Your task to perform on an android device: Go to network settings Image 0: 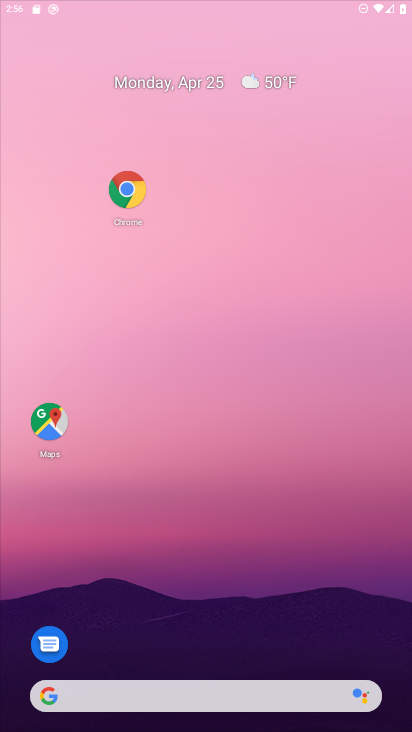
Step 0: click (172, 663)
Your task to perform on an android device: Go to network settings Image 1: 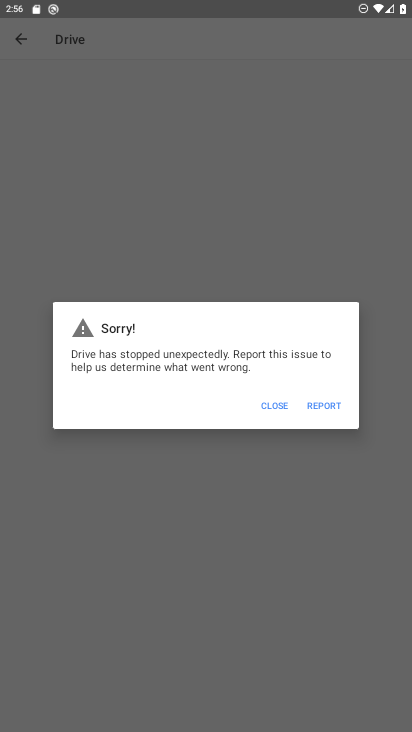
Step 1: press home button
Your task to perform on an android device: Go to network settings Image 2: 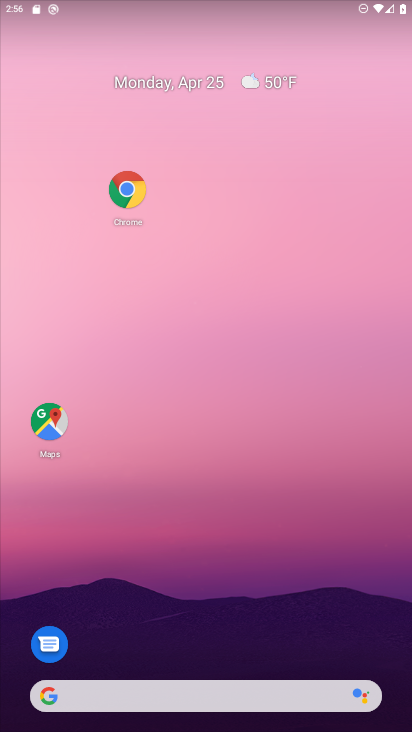
Step 2: click (184, 648)
Your task to perform on an android device: Go to network settings Image 3: 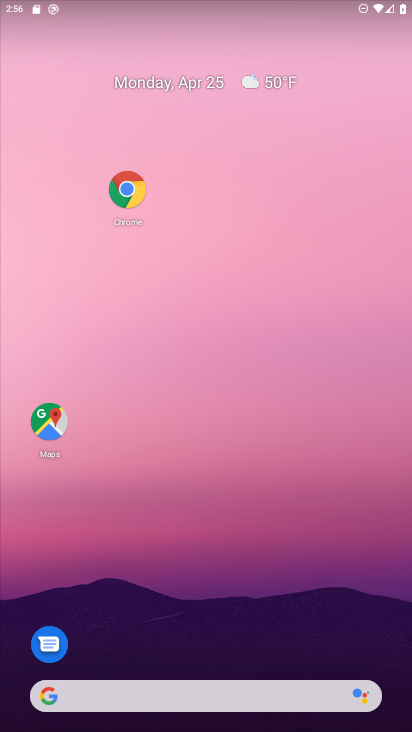
Step 3: click (223, 140)
Your task to perform on an android device: Go to network settings Image 4: 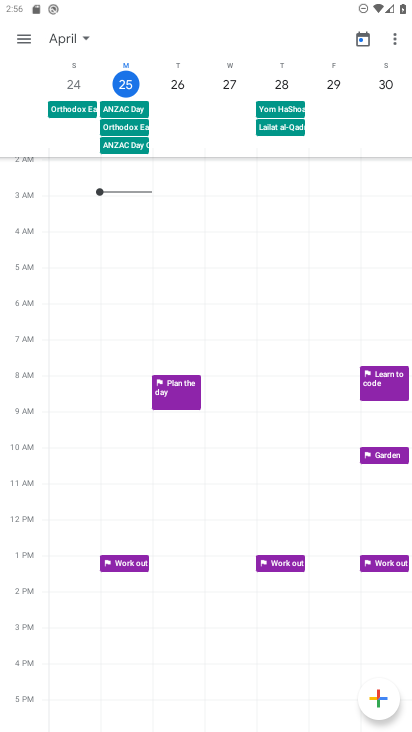
Step 4: drag from (184, 654) to (190, 325)
Your task to perform on an android device: Go to network settings Image 5: 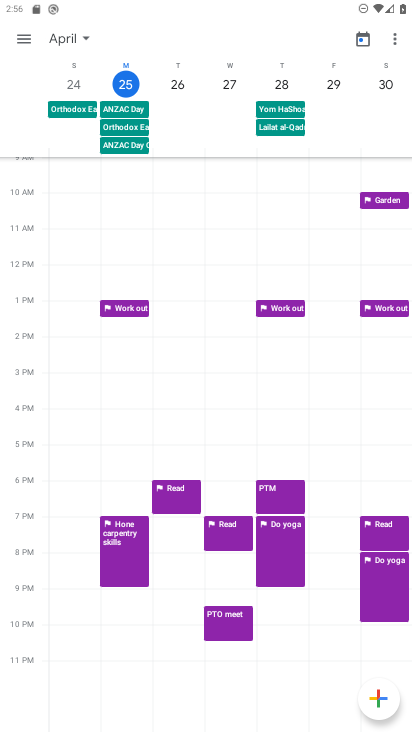
Step 5: press home button
Your task to perform on an android device: Go to network settings Image 6: 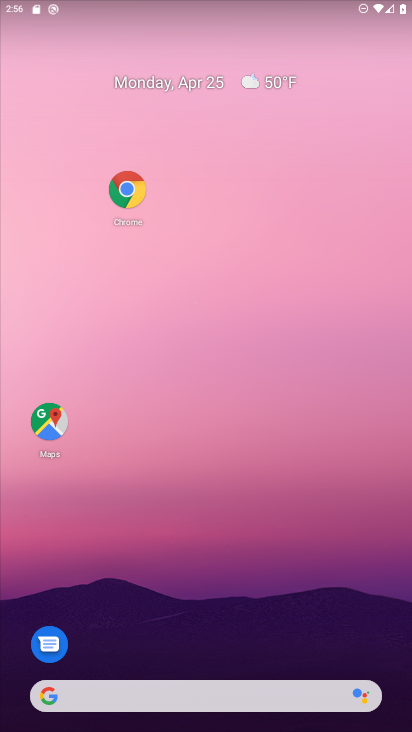
Step 6: click (149, 230)
Your task to perform on an android device: Go to network settings Image 7: 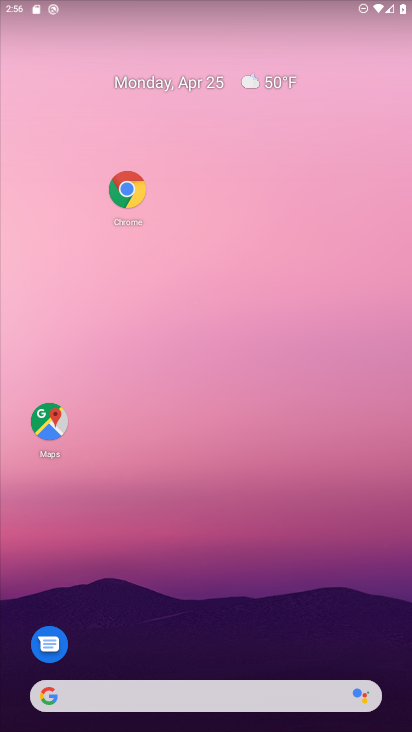
Step 7: drag from (214, 658) to (234, 198)
Your task to perform on an android device: Go to network settings Image 8: 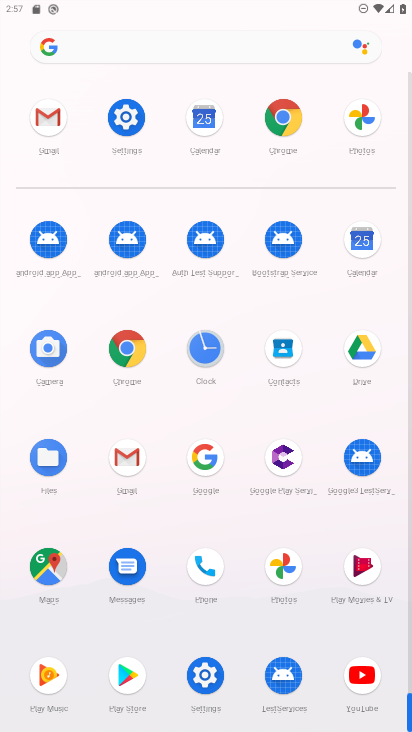
Step 8: click (207, 679)
Your task to perform on an android device: Go to network settings Image 9: 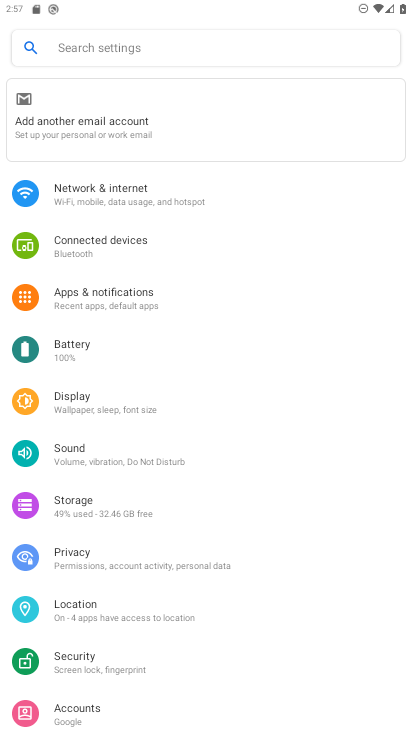
Step 9: click (175, 194)
Your task to perform on an android device: Go to network settings Image 10: 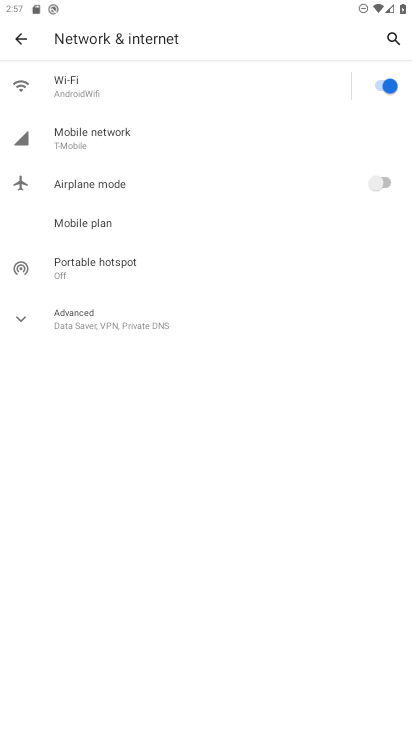
Step 10: task complete